Your task to perform on an android device: Open notification settings Image 0: 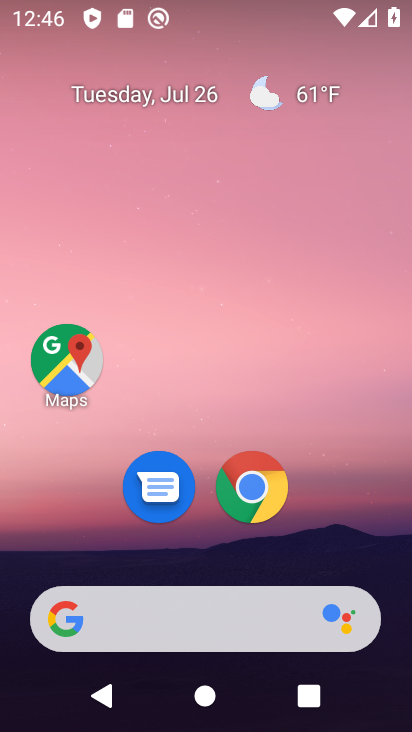
Step 0: drag from (87, 539) to (124, 14)
Your task to perform on an android device: Open notification settings Image 1: 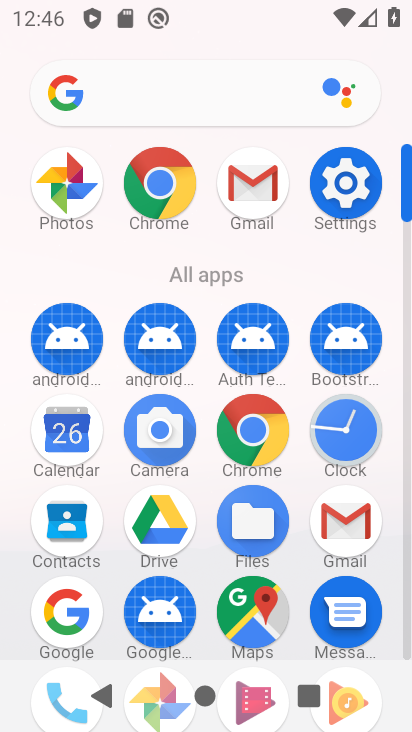
Step 1: click (342, 177)
Your task to perform on an android device: Open notification settings Image 2: 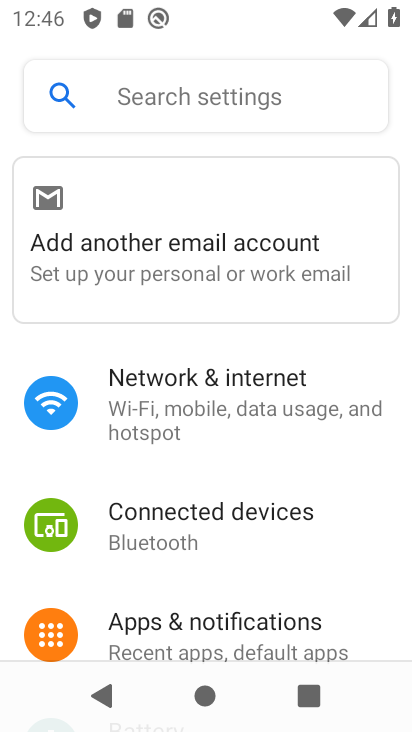
Step 2: click (228, 637)
Your task to perform on an android device: Open notification settings Image 3: 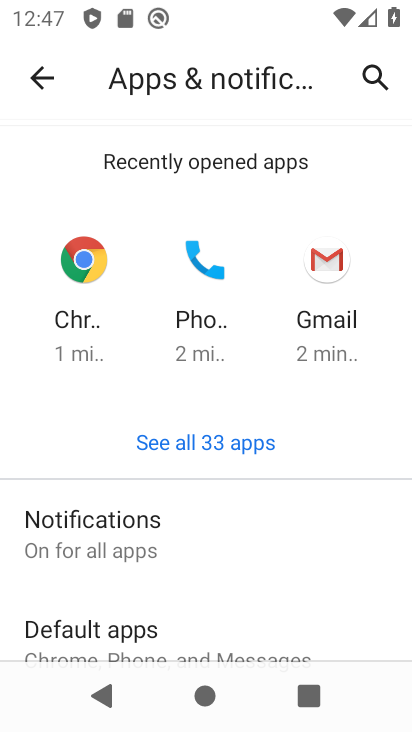
Step 3: task complete